Your task to perform on an android device: Open calendar and show me the third week of next month Image 0: 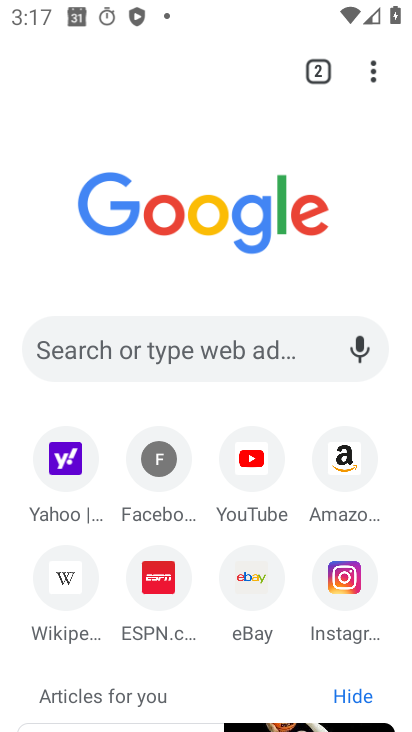
Step 0: press home button
Your task to perform on an android device: Open calendar and show me the third week of next month Image 1: 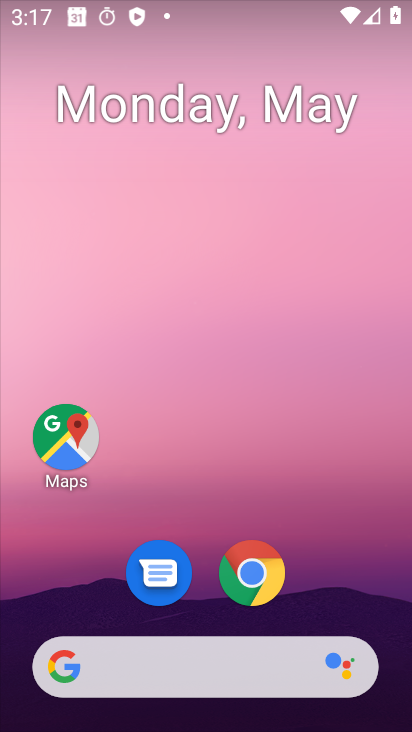
Step 1: drag from (315, 573) to (88, 11)
Your task to perform on an android device: Open calendar and show me the third week of next month Image 2: 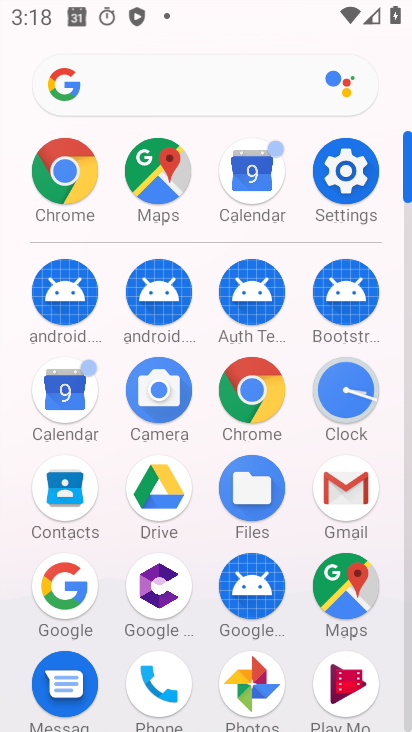
Step 2: click (70, 410)
Your task to perform on an android device: Open calendar and show me the third week of next month Image 3: 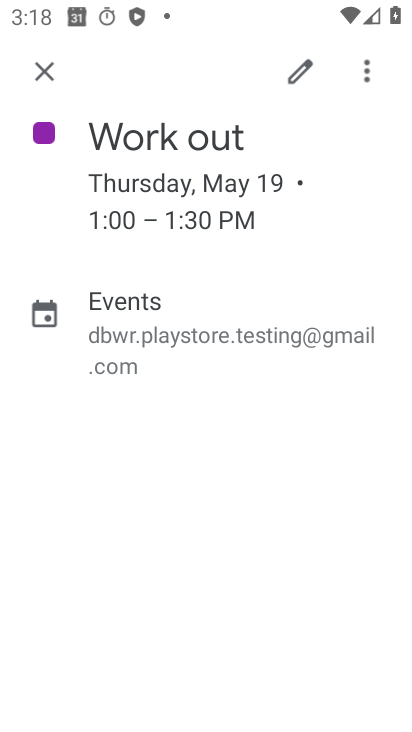
Step 3: click (32, 64)
Your task to perform on an android device: Open calendar and show me the third week of next month Image 4: 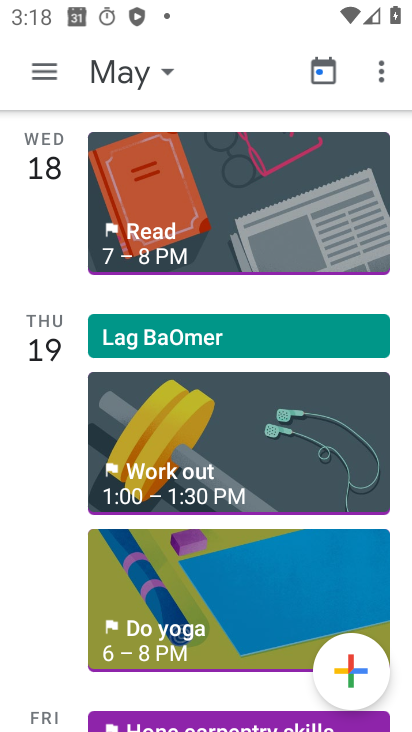
Step 4: click (173, 85)
Your task to perform on an android device: Open calendar and show me the third week of next month Image 5: 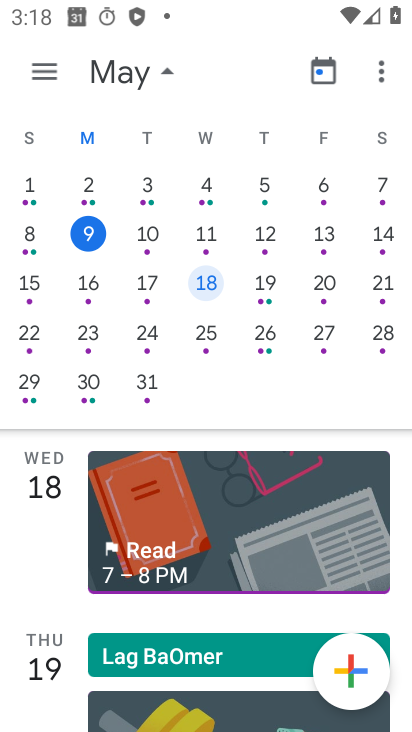
Step 5: drag from (242, 223) to (14, 410)
Your task to perform on an android device: Open calendar and show me the third week of next month Image 6: 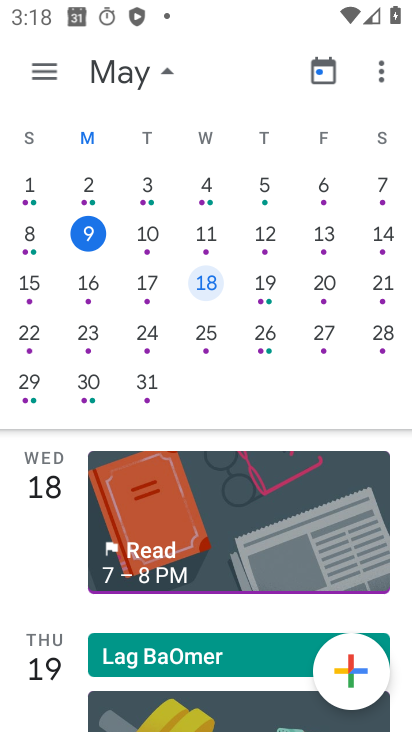
Step 6: drag from (256, 266) to (5, 420)
Your task to perform on an android device: Open calendar and show me the third week of next month Image 7: 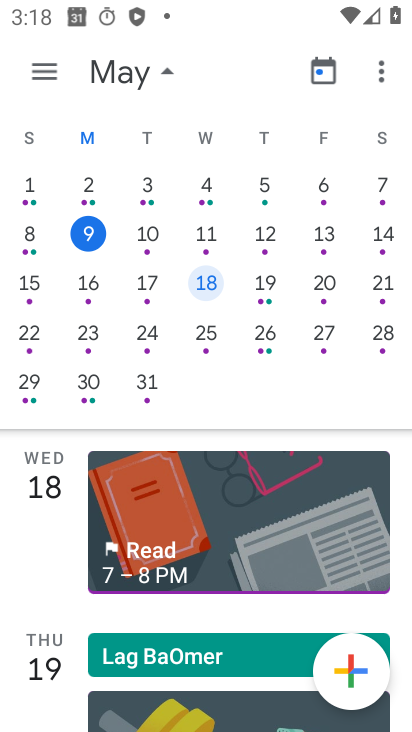
Step 7: drag from (272, 276) to (5, 317)
Your task to perform on an android device: Open calendar and show me the third week of next month Image 8: 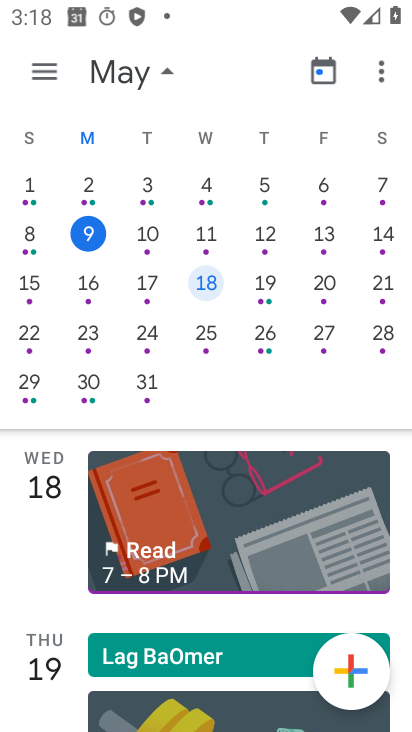
Step 8: drag from (266, 298) to (6, 316)
Your task to perform on an android device: Open calendar and show me the third week of next month Image 9: 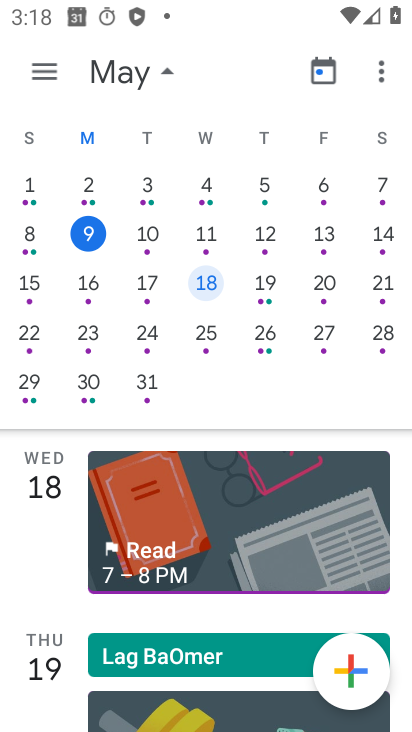
Step 9: drag from (287, 261) to (23, 282)
Your task to perform on an android device: Open calendar and show me the third week of next month Image 10: 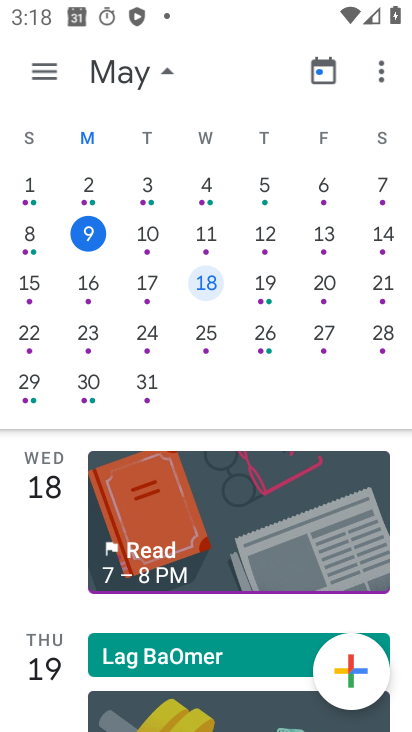
Step 10: drag from (409, 252) to (24, 305)
Your task to perform on an android device: Open calendar and show me the third week of next month Image 11: 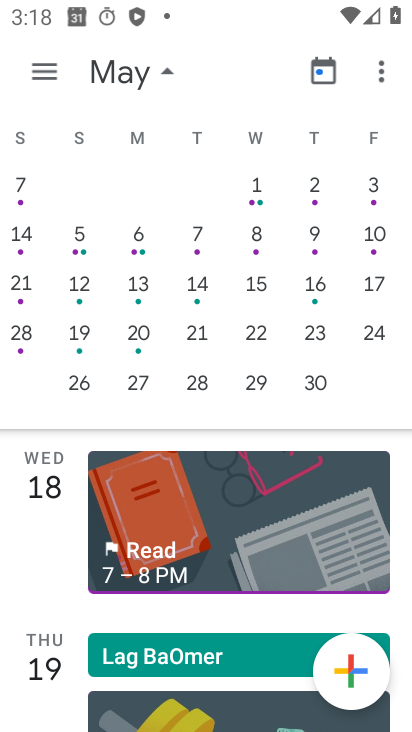
Step 11: drag from (251, 254) to (40, 292)
Your task to perform on an android device: Open calendar and show me the third week of next month Image 12: 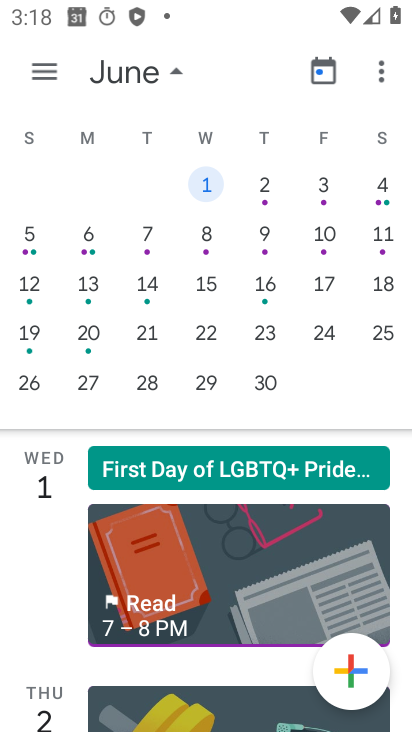
Step 12: click (212, 291)
Your task to perform on an android device: Open calendar and show me the third week of next month Image 13: 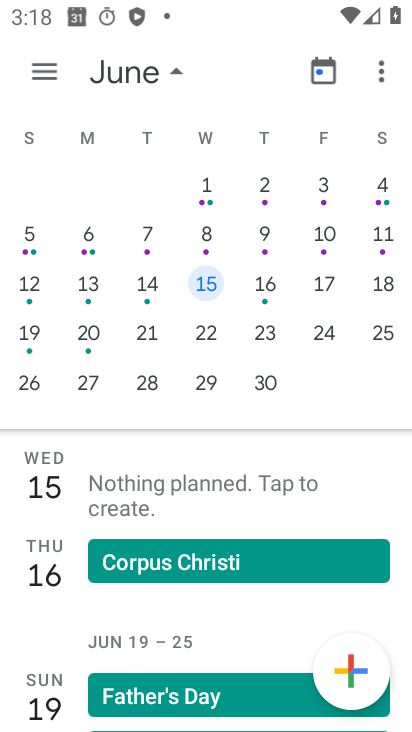
Step 13: click (212, 291)
Your task to perform on an android device: Open calendar and show me the third week of next month Image 14: 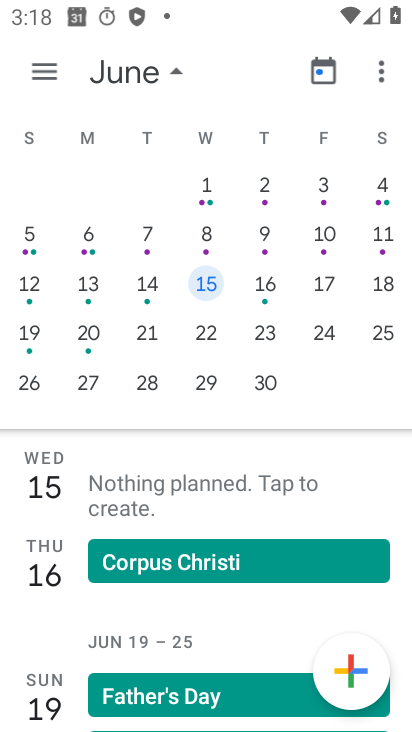
Step 14: task complete